Your task to perform on an android device: turn on translation in the chrome app Image 0: 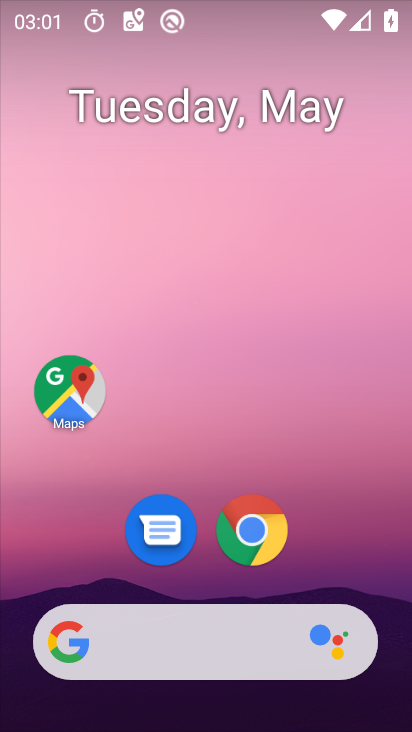
Step 0: click (411, 511)
Your task to perform on an android device: turn on translation in the chrome app Image 1: 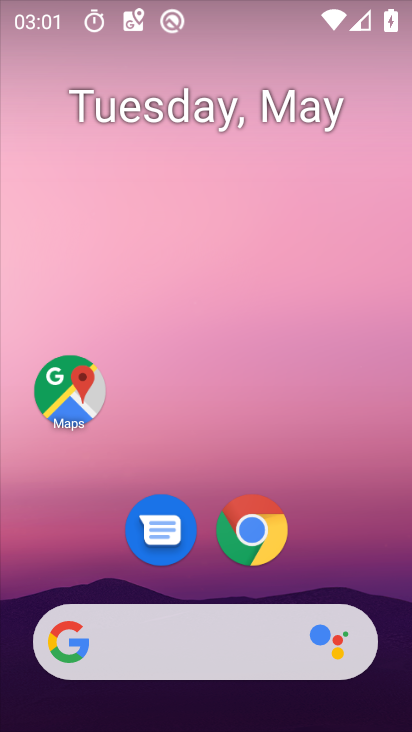
Step 1: press home button
Your task to perform on an android device: turn on translation in the chrome app Image 2: 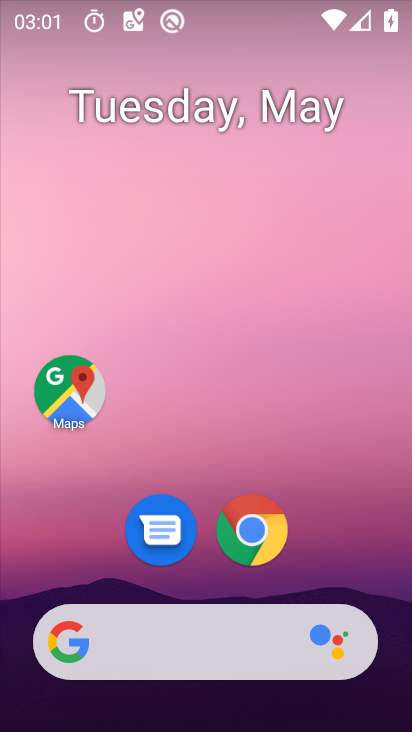
Step 2: click (246, 518)
Your task to perform on an android device: turn on translation in the chrome app Image 3: 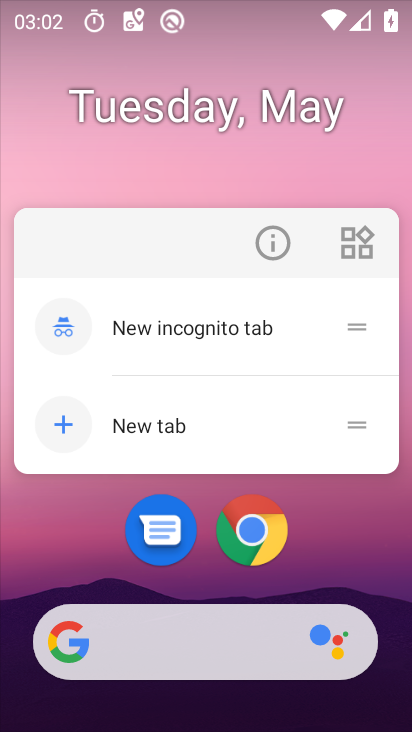
Step 3: click (242, 540)
Your task to perform on an android device: turn on translation in the chrome app Image 4: 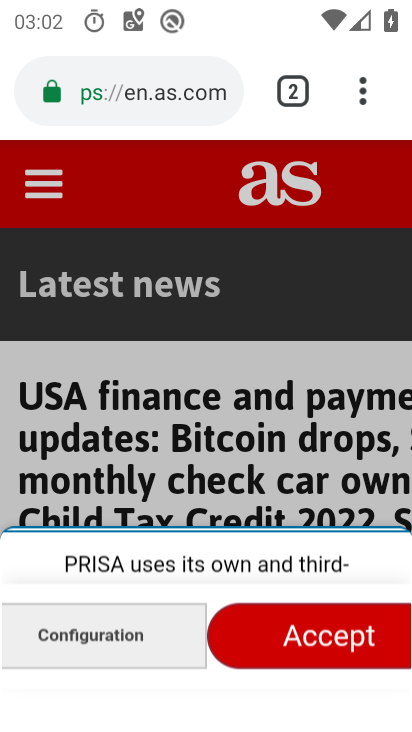
Step 4: click (365, 87)
Your task to perform on an android device: turn on translation in the chrome app Image 5: 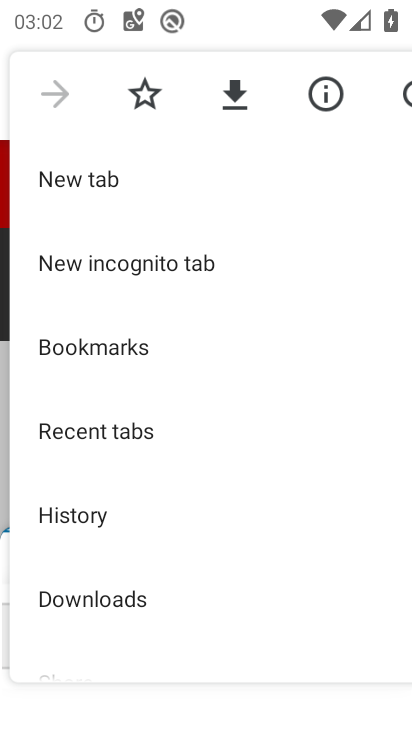
Step 5: drag from (99, 610) to (282, 74)
Your task to perform on an android device: turn on translation in the chrome app Image 6: 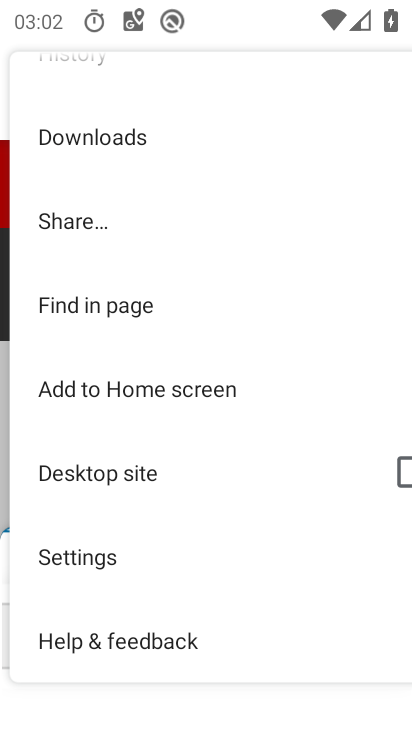
Step 6: drag from (81, 578) to (250, 183)
Your task to perform on an android device: turn on translation in the chrome app Image 7: 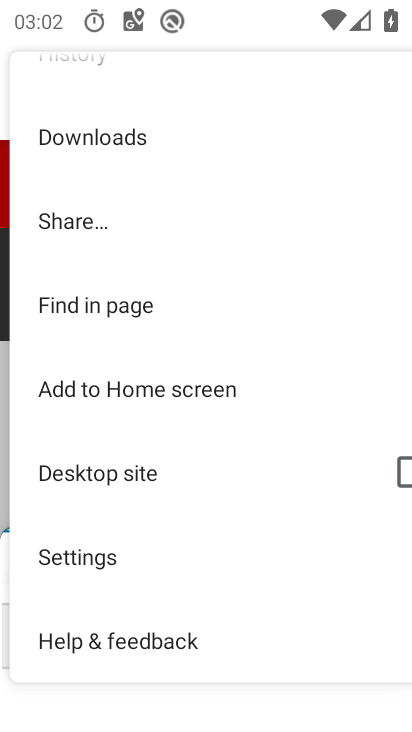
Step 7: click (72, 563)
Your task to perform on an android device: turn on translation in the chrome app Image 8: 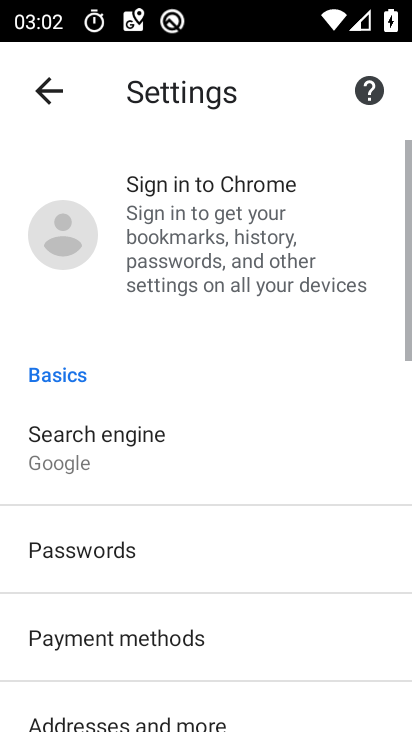
Step 8: drag from (15, 613) to (302, 76)
Your task to perform on an android device: turn on translation in the chrome app Image 9: 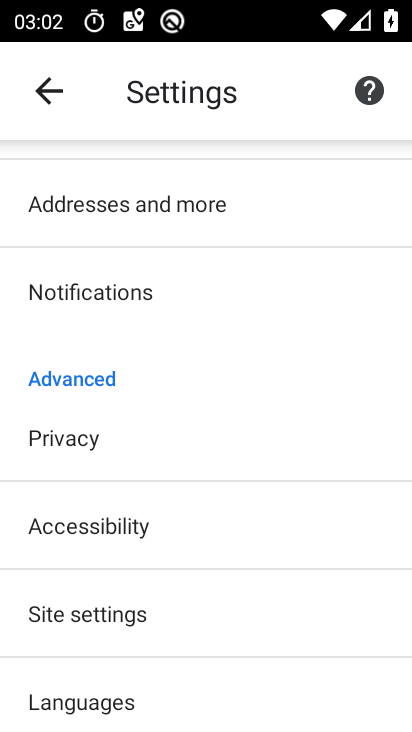
Step 9: drag from (32, 606) to (268, 204)
Your task to perform on an android device: turn on translation in the chrome app Image 10: 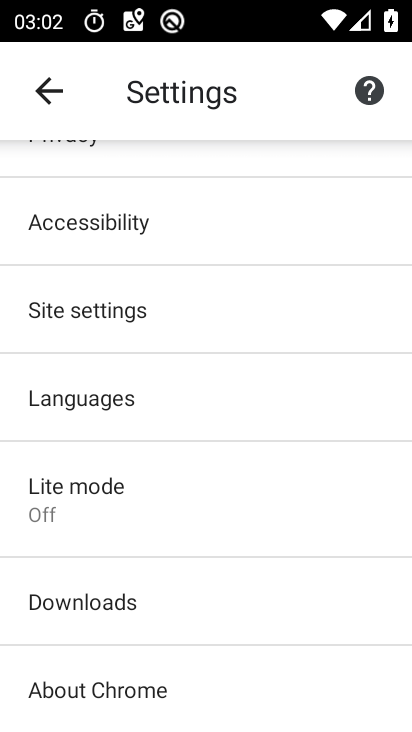
Step 10: click (96, 395)
Your task to perform on an android device: turn on translation in the chrome app Image 11: 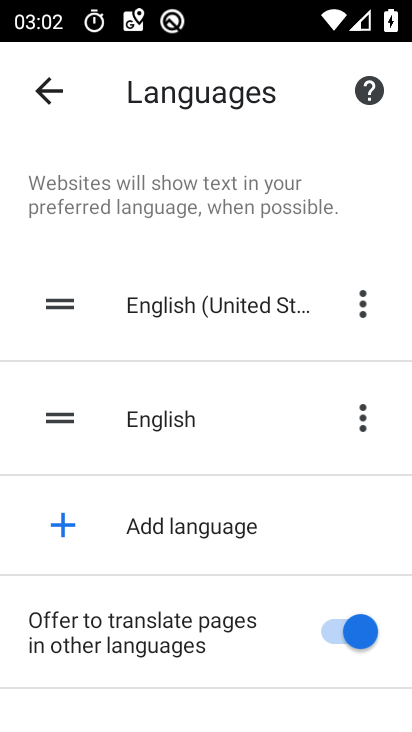
Step 11: task complete